Your task to perform on an android device: toggle wifi Image 0: 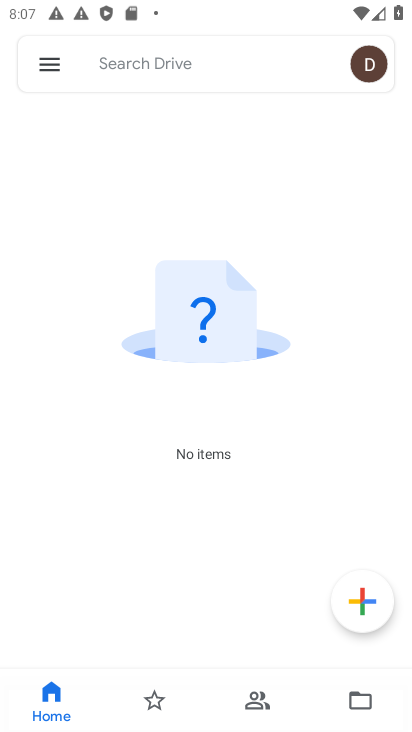
Step 0: press home button
Your task to perform on an android device: toggle wifi Image 1: 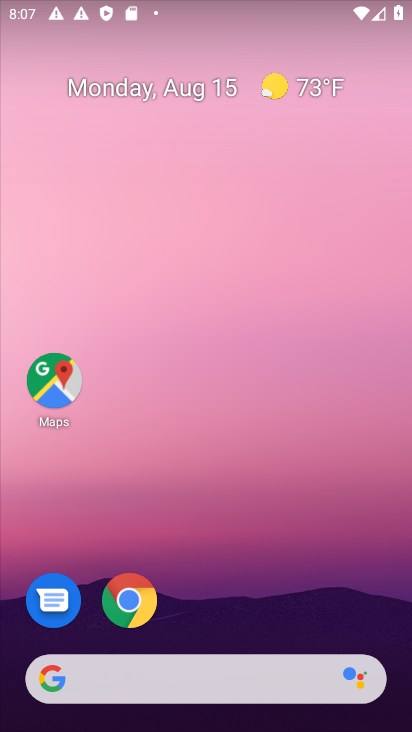
Step 1: drag from (208, 616) to (185, 89)
Your task to perform on an android device: toggle wifi Image 2: 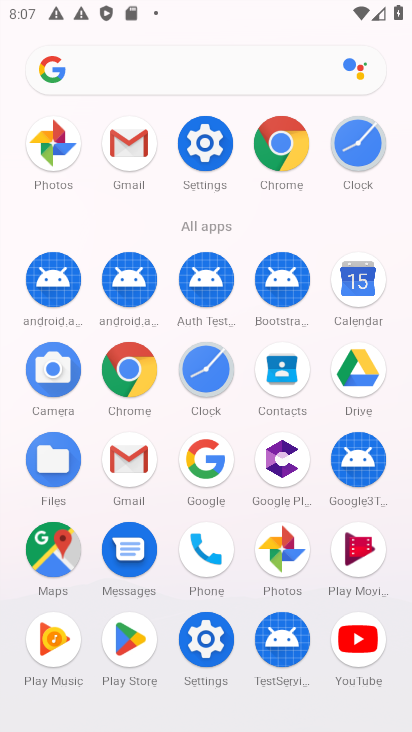
Step 2: click (209, 132)
Your task to perform on an android device: toggle wifi Image 3: 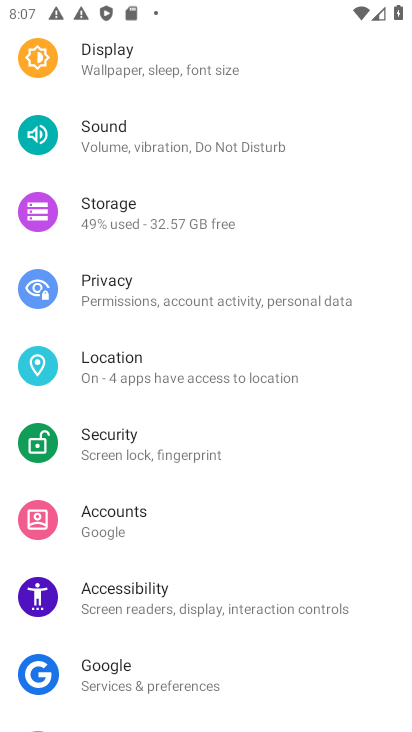
Step 3: drag from (154, 135) to (167, 563)
Your task to perform on an android device: toggle wifi Image 4: 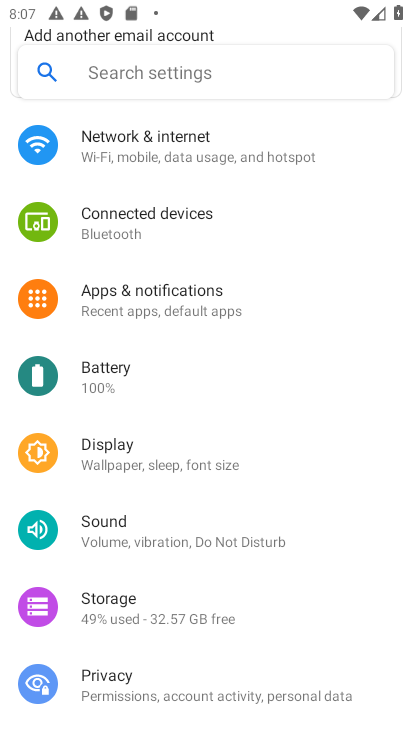
Step 4: drag from (198, 180) to (189, 564)
Your task to perform on an android device: toggle wifi Image 5: 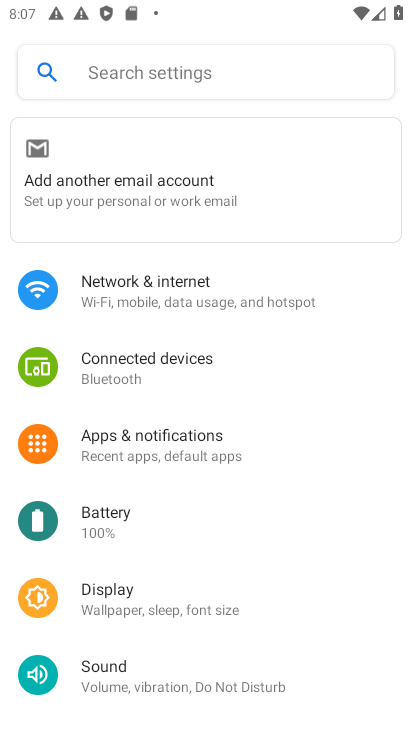
Step 5: click (145, 293)
Your task to perform on an android device: toggle wifi Image 6: 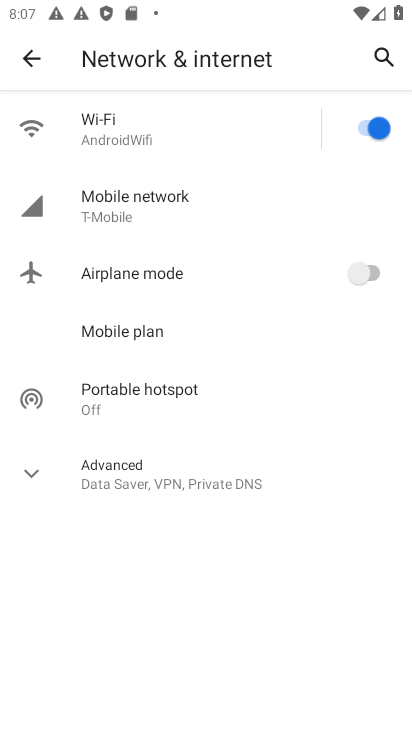
Step 6: click (365, 127)
Your task to perform on an android device: toggle wifi Image 7: 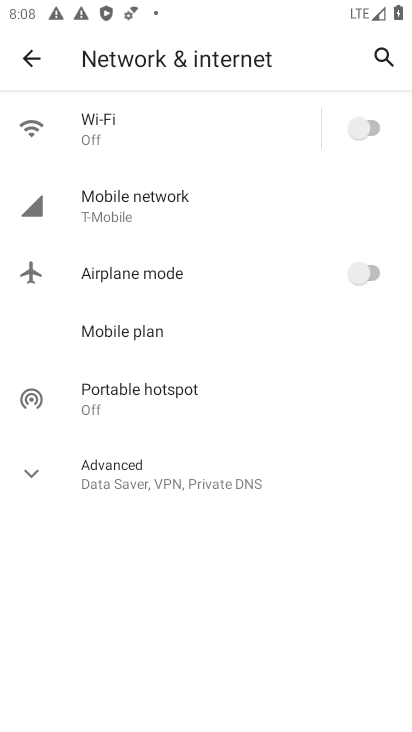
Step 7: task complete